Your task to perform on an android device: see tabs open on other devices in the chrome app Image 0: 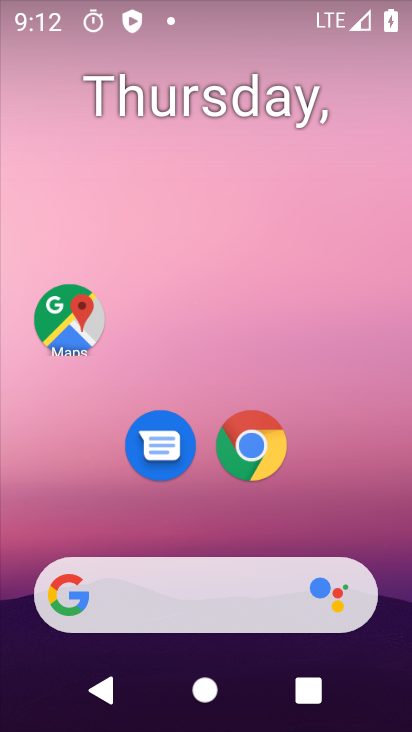
Step 0: click (248, 451)
Your task to perform on an android device: see tabs open on other devices in the chrome app Image 1: 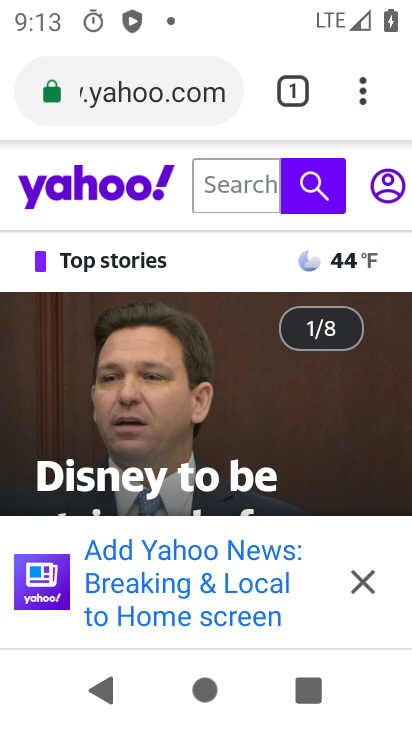
Step 1: click (361, 83)
Your task to perform on an android device: see tabs open on other devices in the chrome app Image 2: 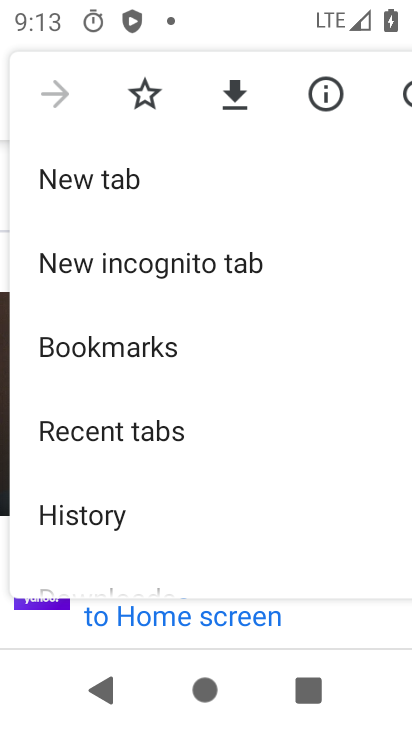
Step 2: click (102, 434)
Your task to perform on an android device: see tabs open on other devices in the chrome app Image 3: 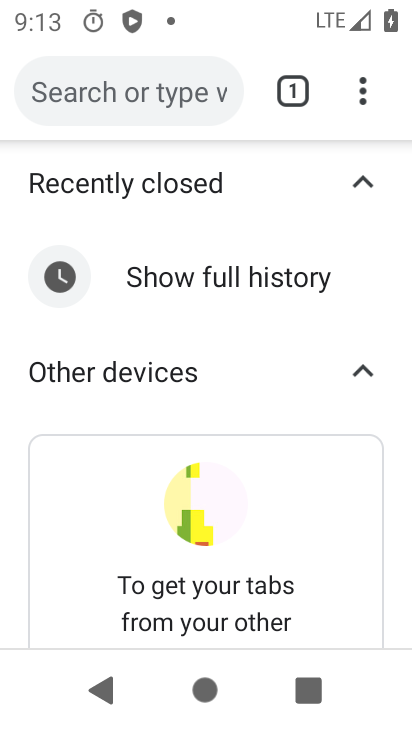
Step 3: drag from (296, 487) to (286, 264)
Your task to perform on an android device: see tabs open on other devices in the chrome app Image 4: 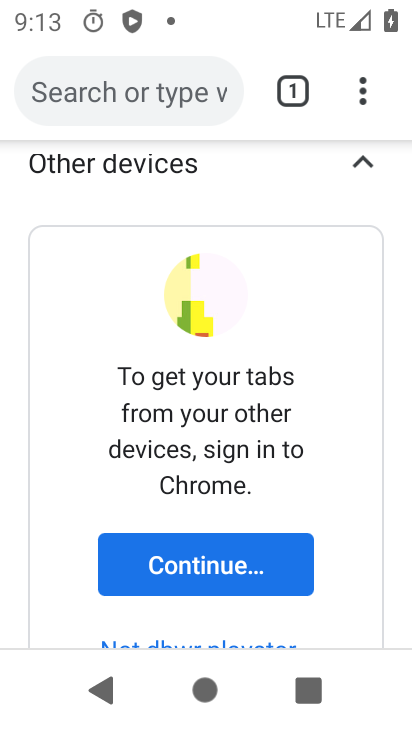
Step 4: click (206, 554)
Your task to perform on an android device: see tabs open on other devices in the chrome app Image 5: 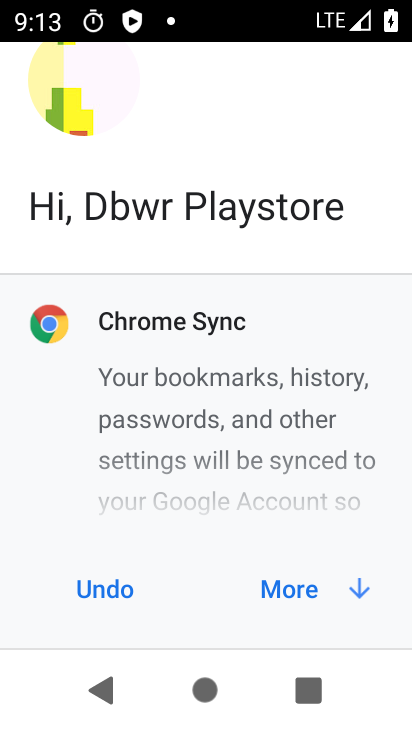
Step 5: click (289, 582)
Your task to perform on an android device: see tabs open on other devices in the chrome app Image 6: 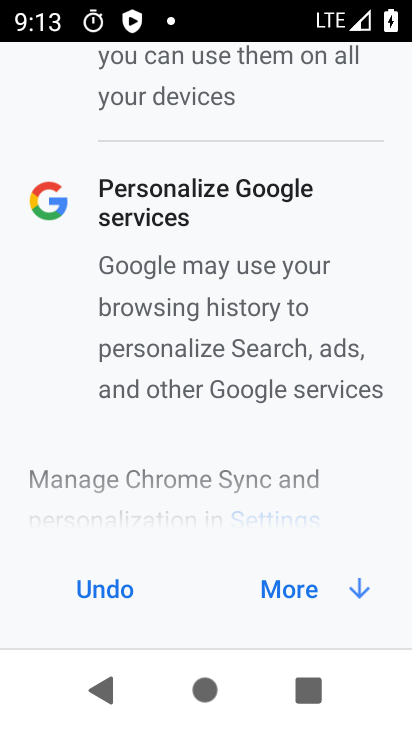
Step 6: click (289, 582)
Your task to perform on an android device: see tabs open on other devices in the chrome app Image 7: 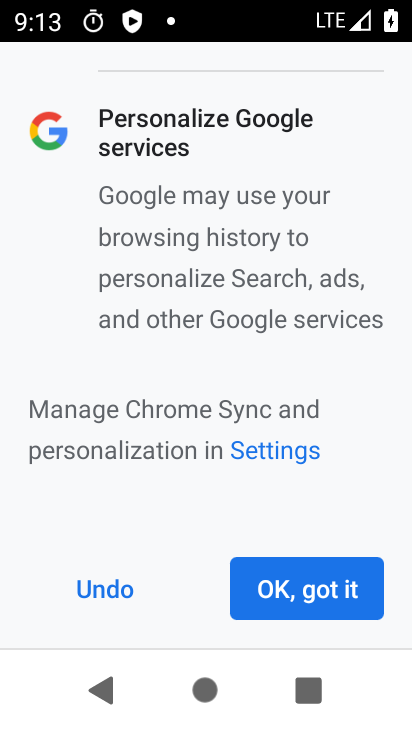
Step 7: click (289, 582)
Your task to perform on an android device: see tabs open on other devices in the chrome app Image 8: 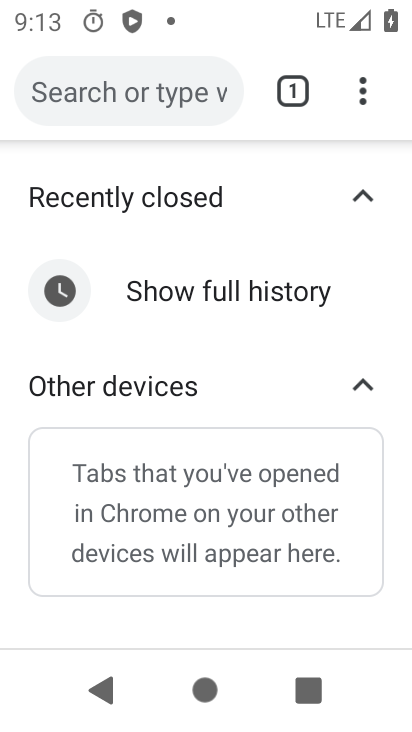
Step 8: task complete